Your task to perform on an android device: What's the weather? Image 0: 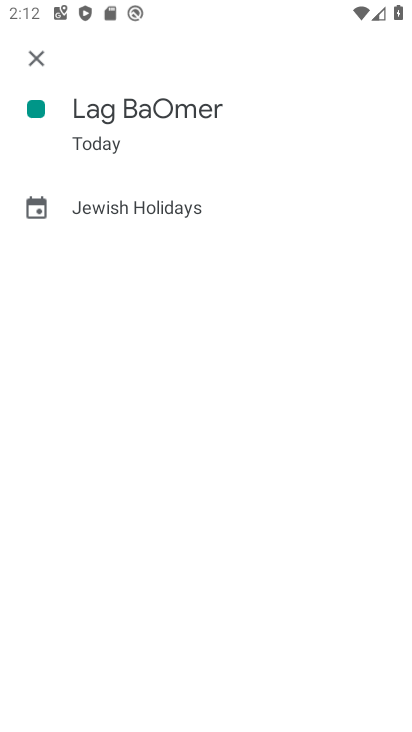
Step 0: press home button
Your task to perform on an android device: What's the weather? Image 1: 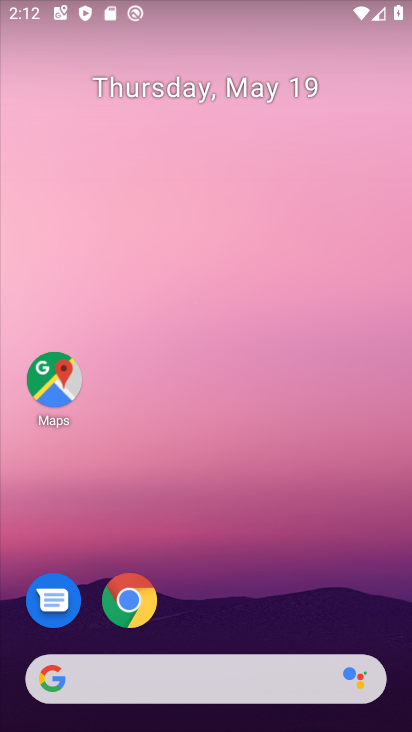
Step 1: drag from (135, 651) to (180, 276)
Your task to perform on an android device: What's the weather? Image 2: 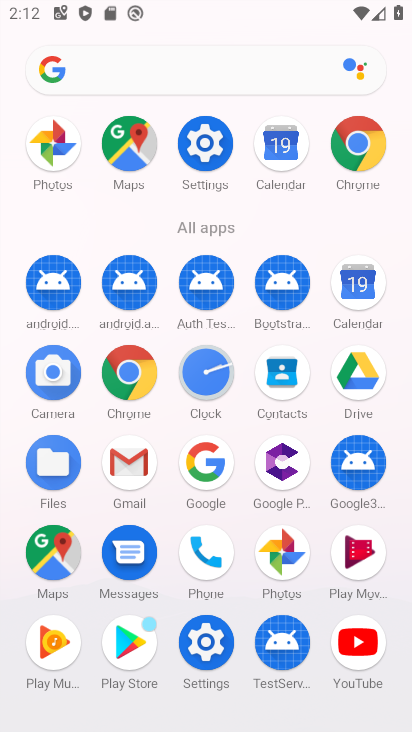
Step 2: click (200, 470)
Your task to perform on an android device: What's the weather? Image 3: 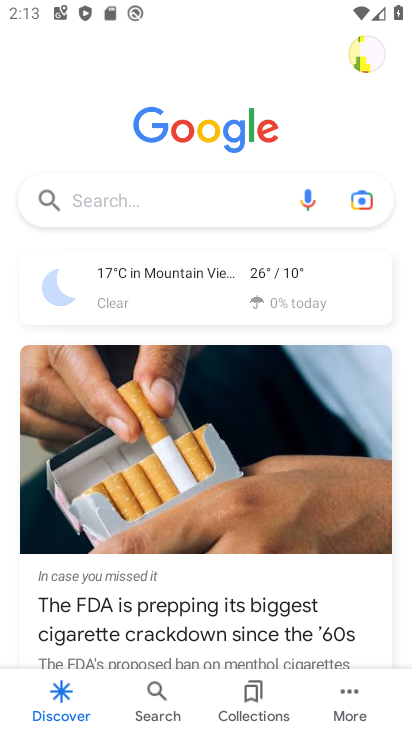
Step 3: click (209, 280)
Your task to perform on an android device: What's the weather? Image 4: 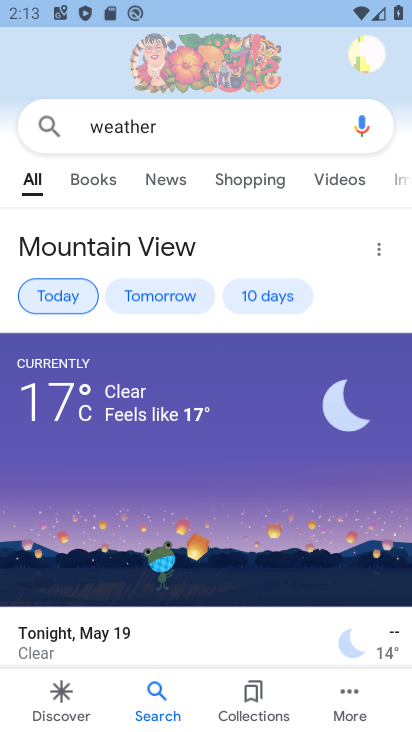
Step 4: task complete